Your task to perform on an android device: show emergency info Image 0: 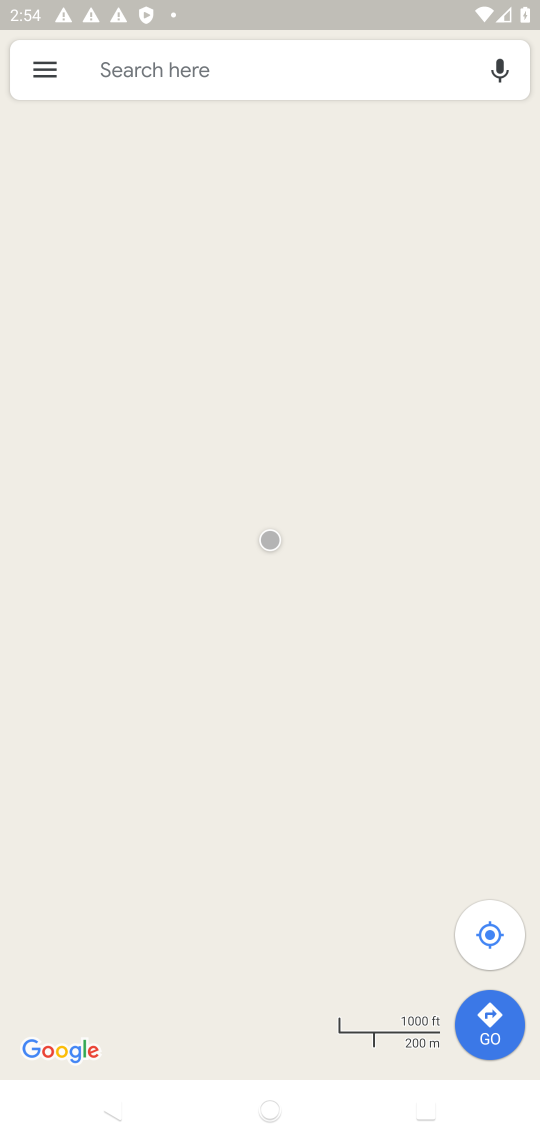
Step 0: press home button
Your task to perform on an android device: show emergency info Image 1: 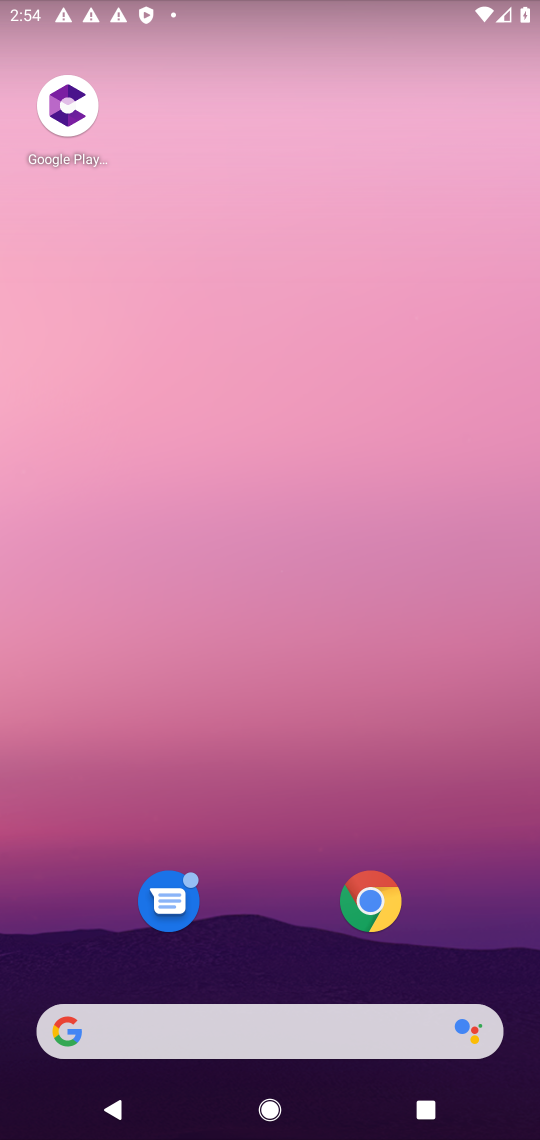
Step 1: drag from (278, 868) to (301, 90)
Your task to perform on an android device: show emergency info Image 2: 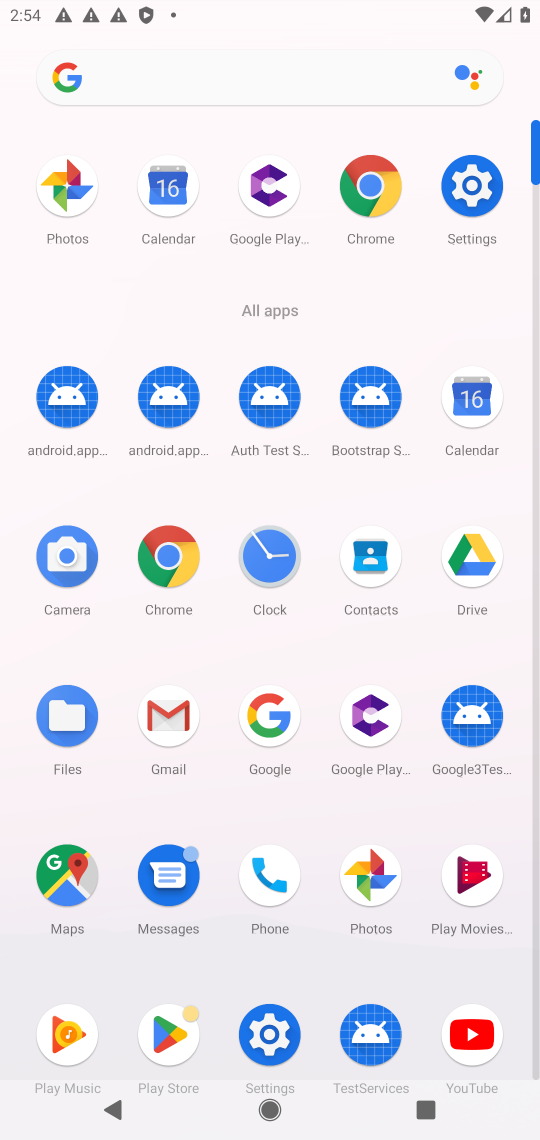
Step 2: click (272, 1034)
Your task to perform on an android device: show emergency info Image 3: 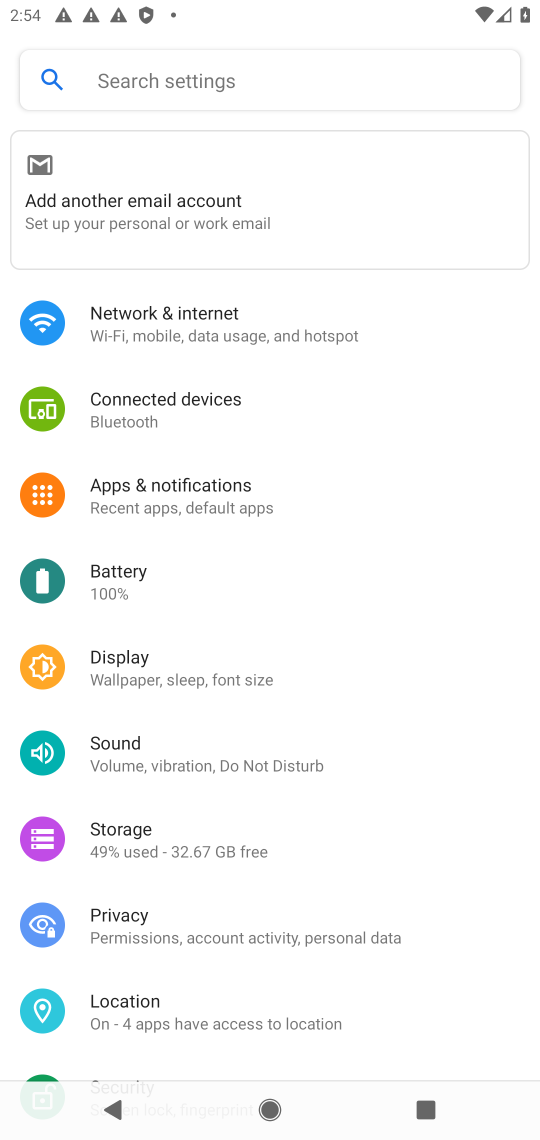
Step 3: drag from (157, 468) to (185, 249)
Your task to perform on an android device: show emergency info Image 4: 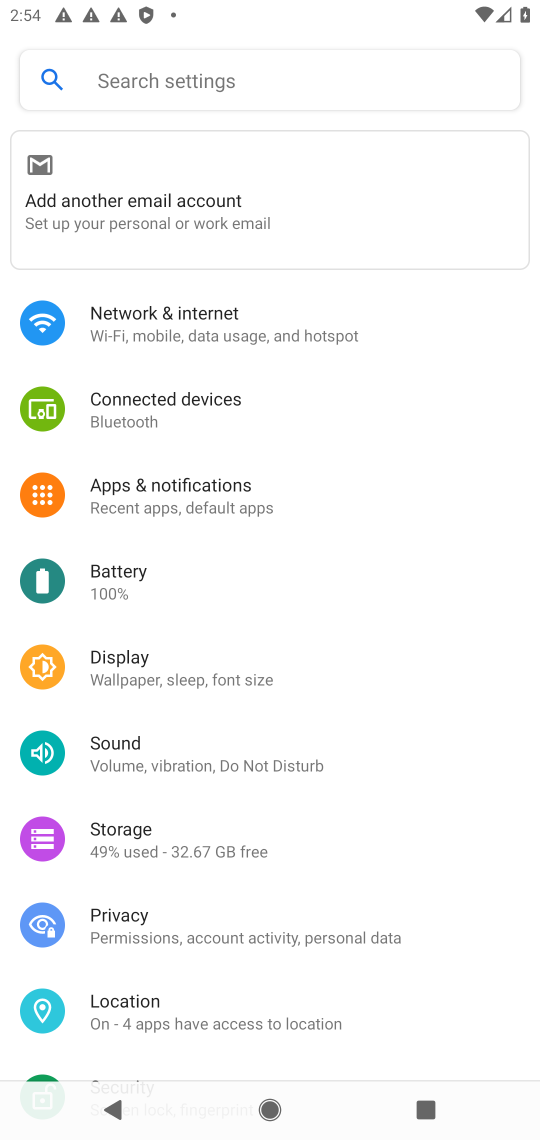
Step 4: drag from (246, 964) to (246, 304)
Your task to perform on an android device: show emergency info Image 5: 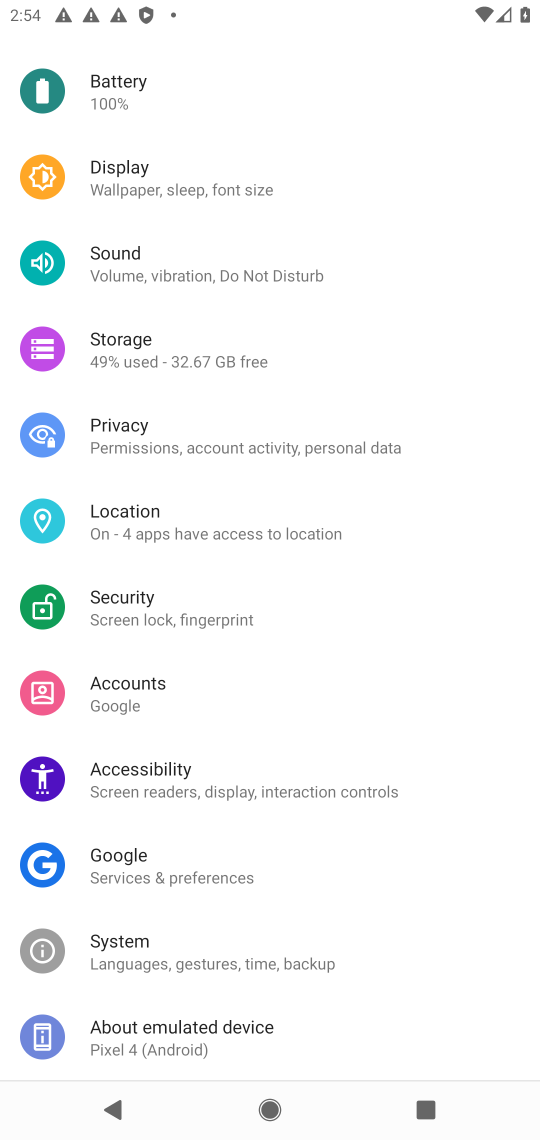
Step 5: click (171, 1028)
Your task to perform on an android device: show emergency info Image 6: 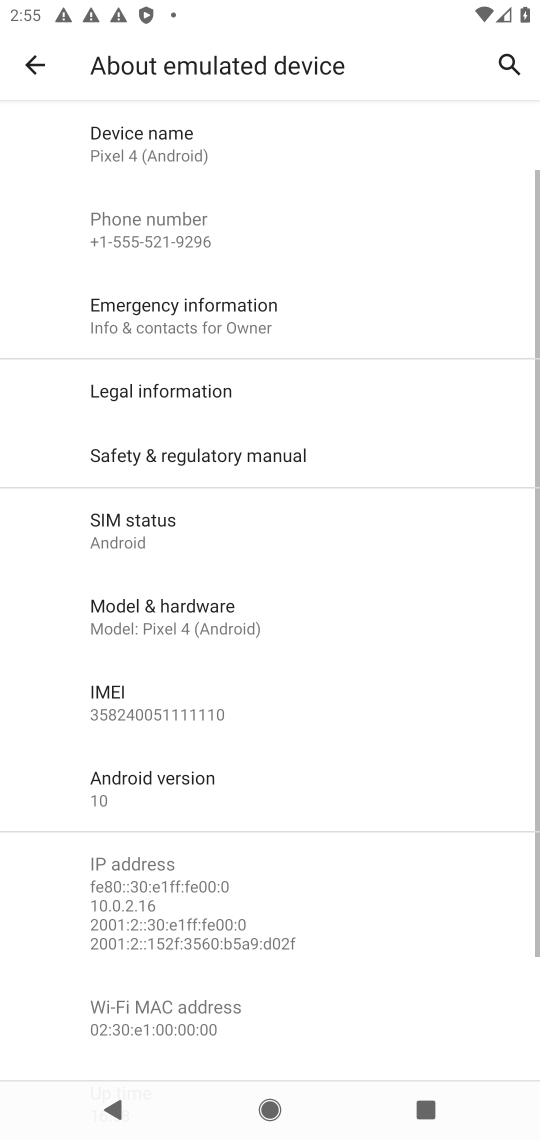
Step 6: click (218, 304)
Your task to perform on an android device: show emergency info Image 7: 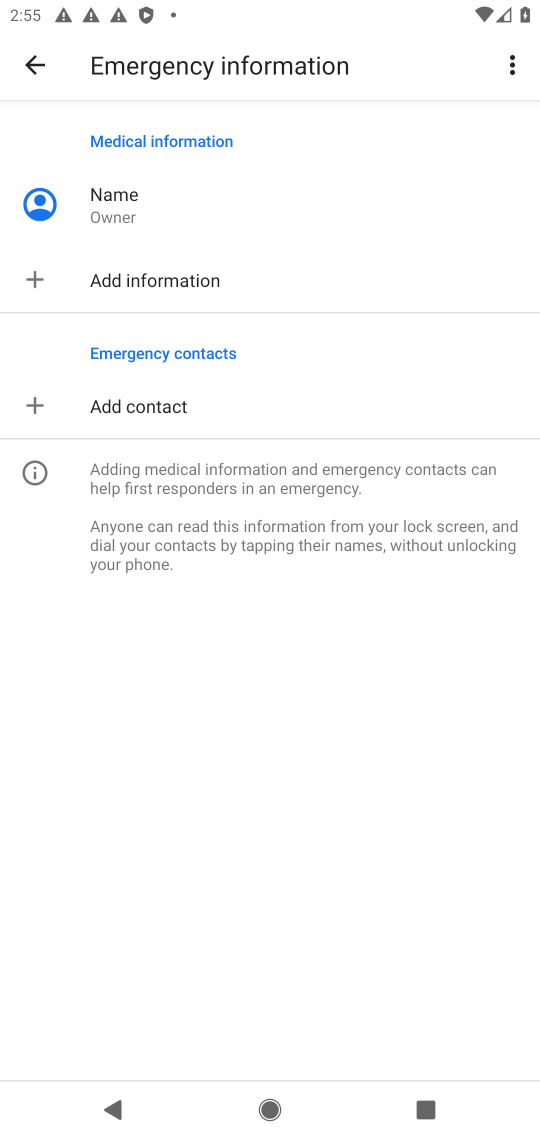
Step 7: task complete